Your task to perform on an android device: See recent photos Image 0: 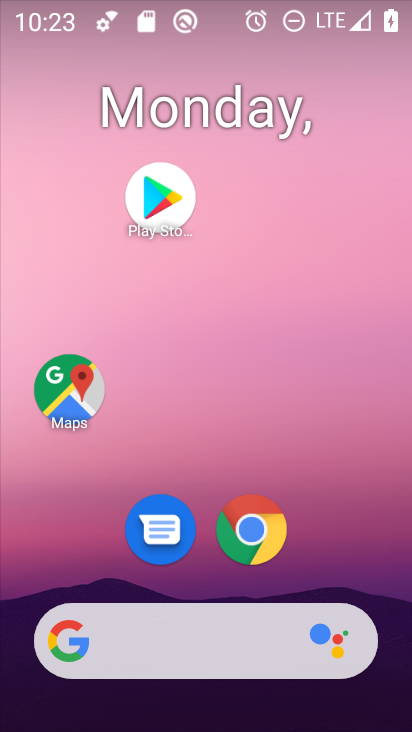
Step 0: drag from (332, 512) to (229, 69)
Your task to perform on an android device: See recent photos Image 1: 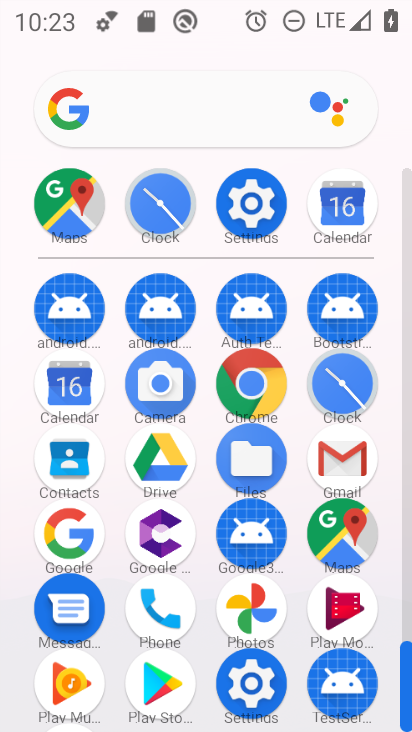
Step 1: click (246, 607)
Your task to perform on an android device: See recent photos Image 2: 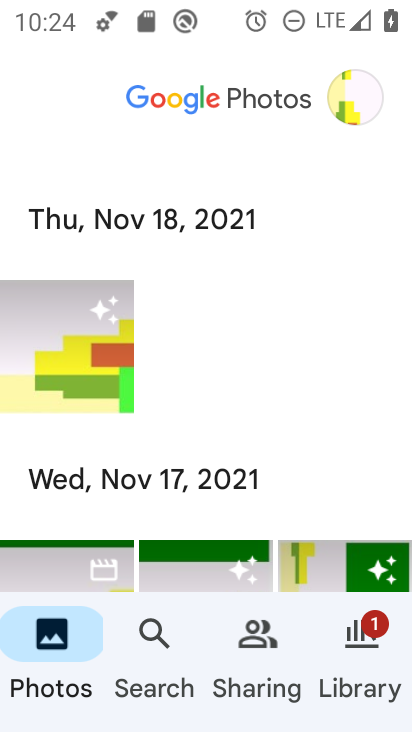
Step 2: task complete